Your task to perform on an android device: What's the weather today? Image 0: 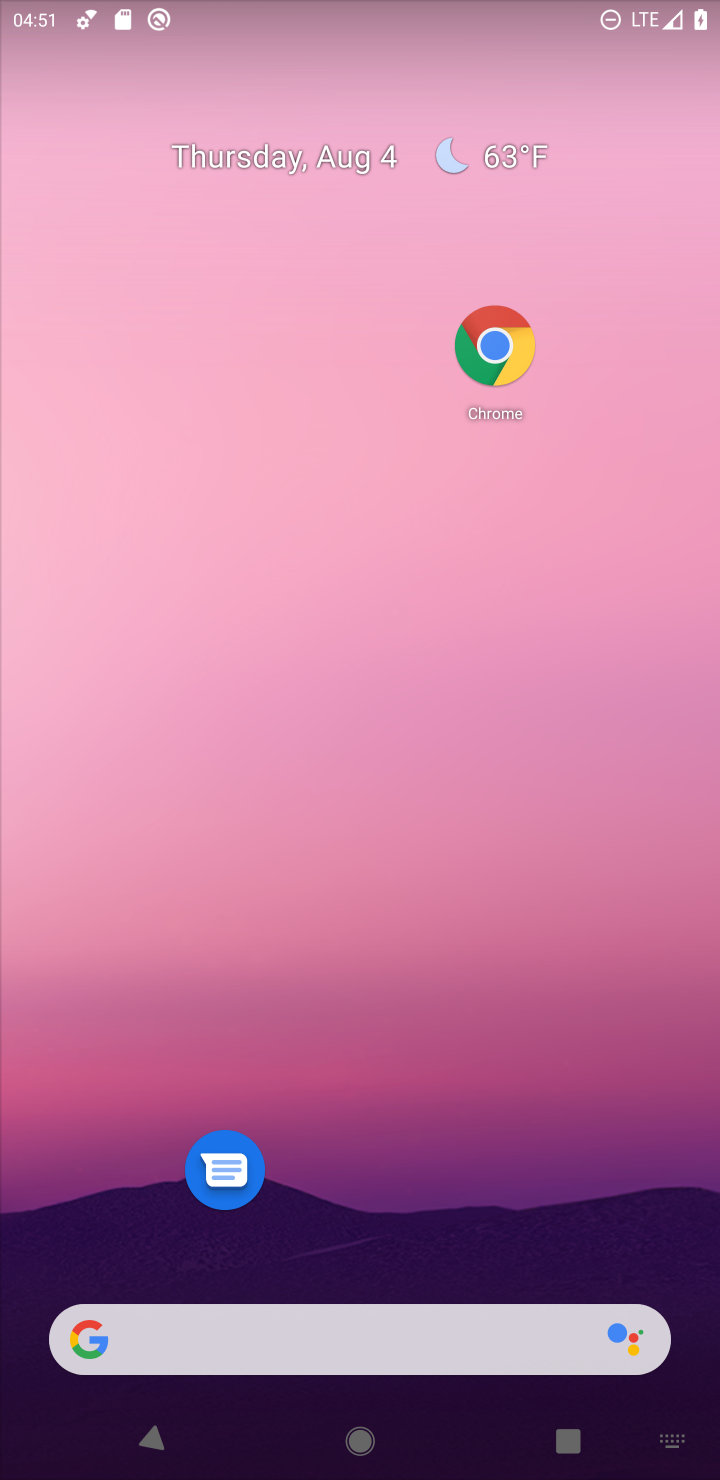
Step 0: click (504, 332)
Your task to perform on an android device: What's the weather today? Image 1: 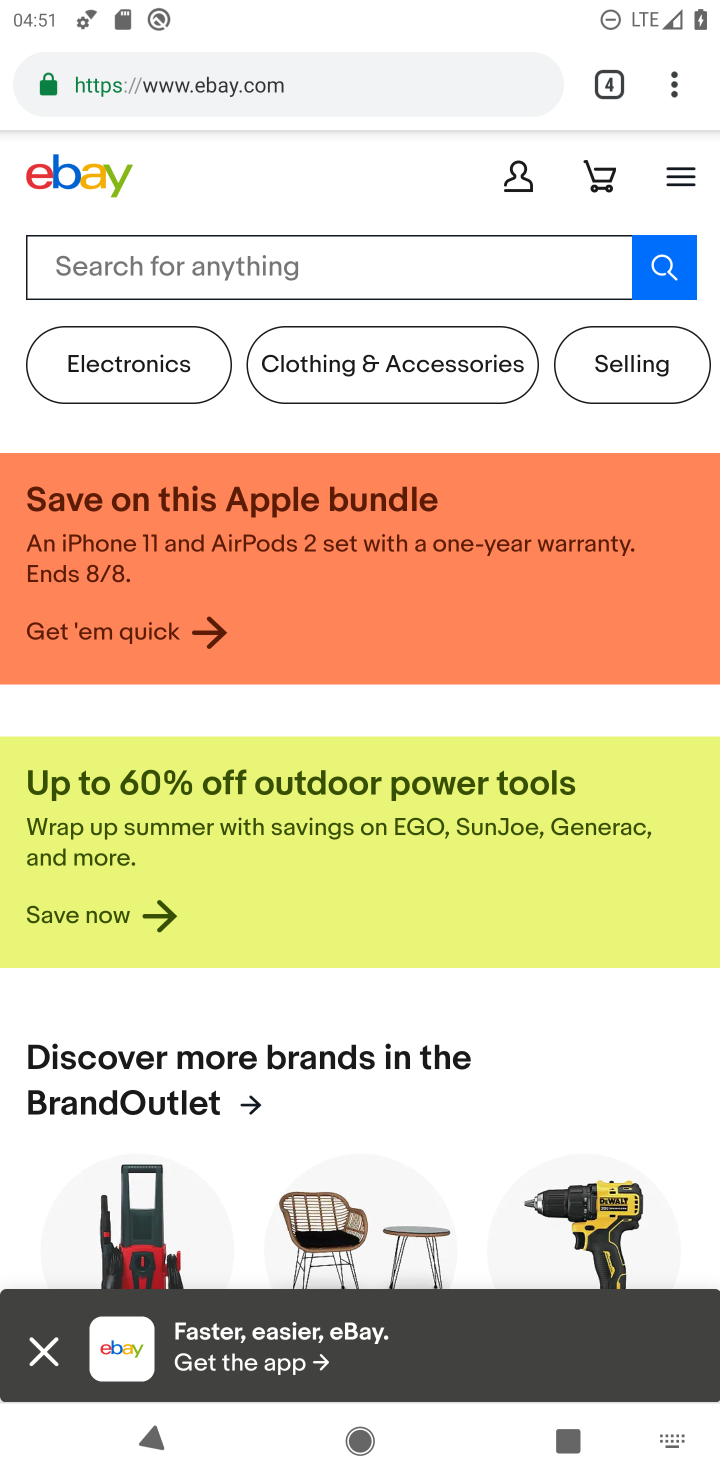
Step 1: click (445, 91)
Your task to perform on an android device: What's the weather today? Image 2: 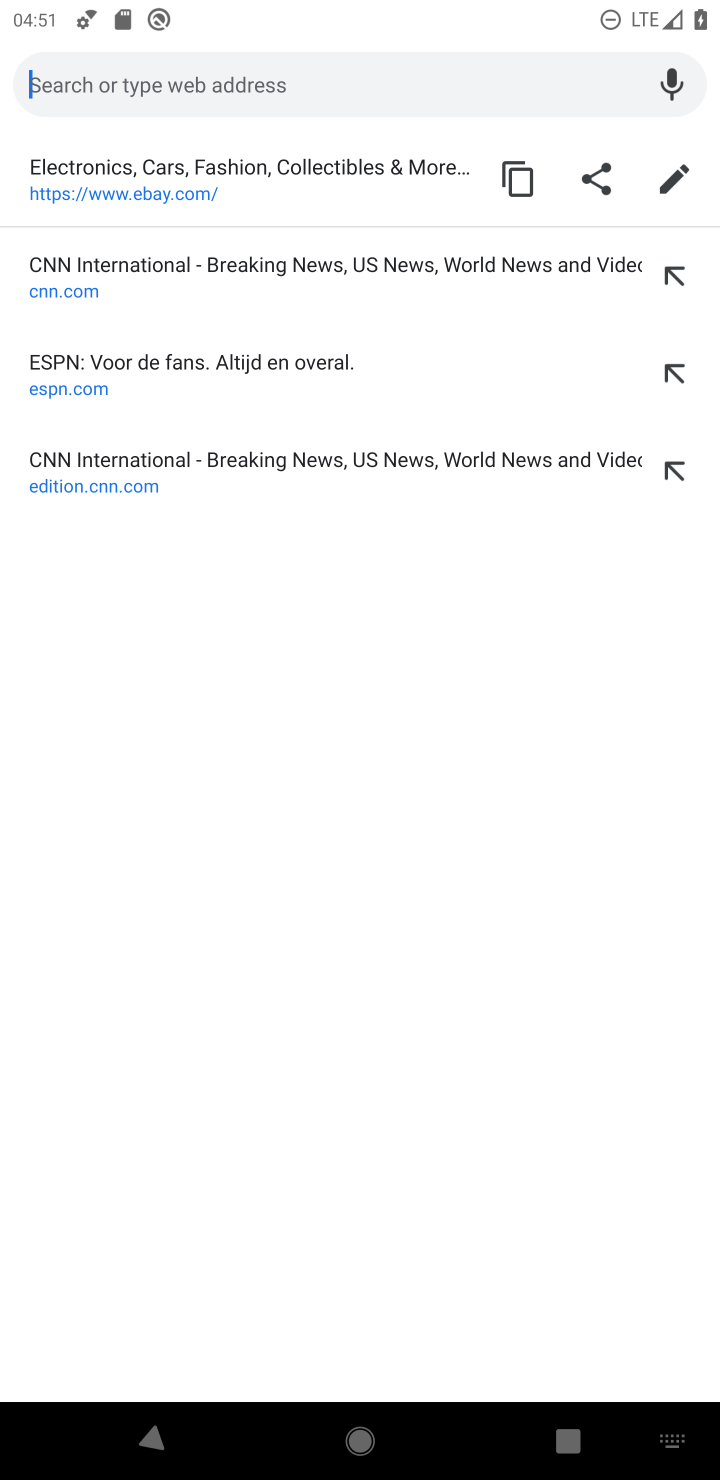
Step 2: type "What's the weather today?"
Your task to perform on an android device: What's the weather today? Image 3: 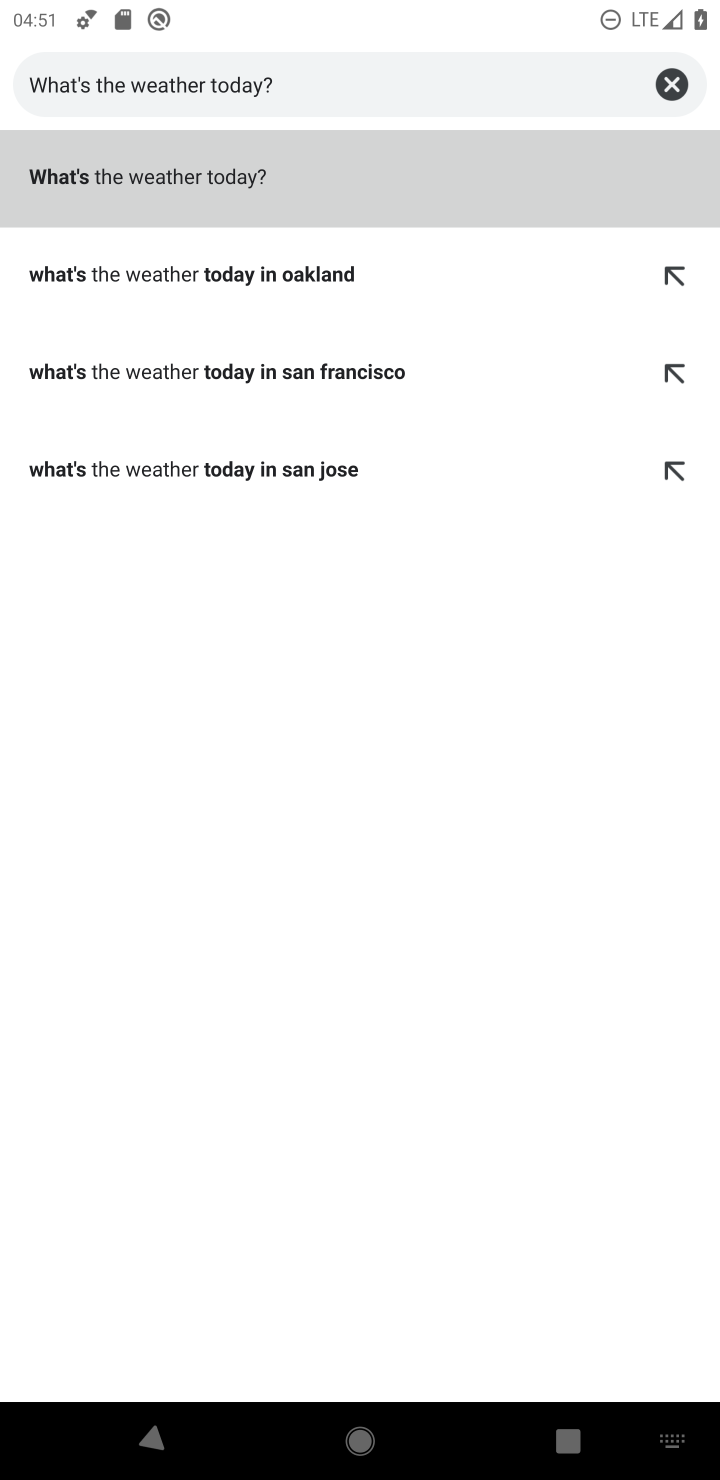
Step 3: click (190, 200)
Your task to perform on an android device: What's the weather today? Image 4: 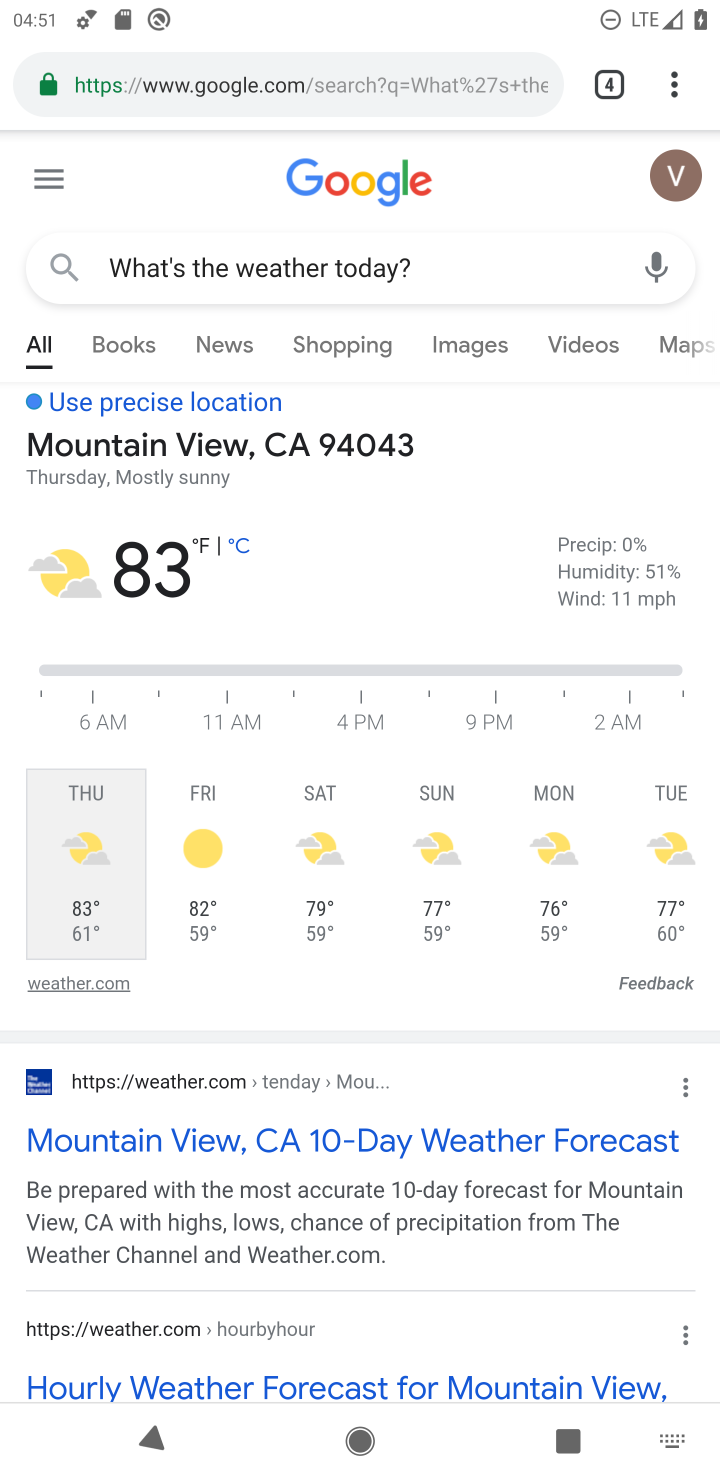
Step 4: task complete